Your task to perform on an android device: check google app version Image 0: 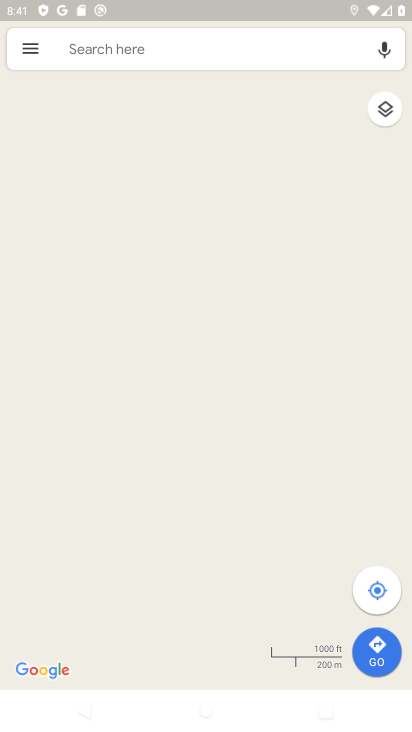
Step 0: drag from (279, 656) to (260, 311)
Your task to perform on an android device: check google app version Image 1: 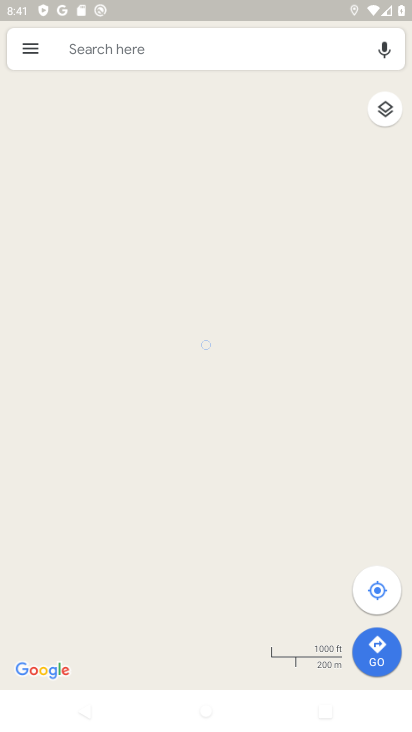
Step 1: task complete